Your task to perform on an android device: Show me recent news Image 0: 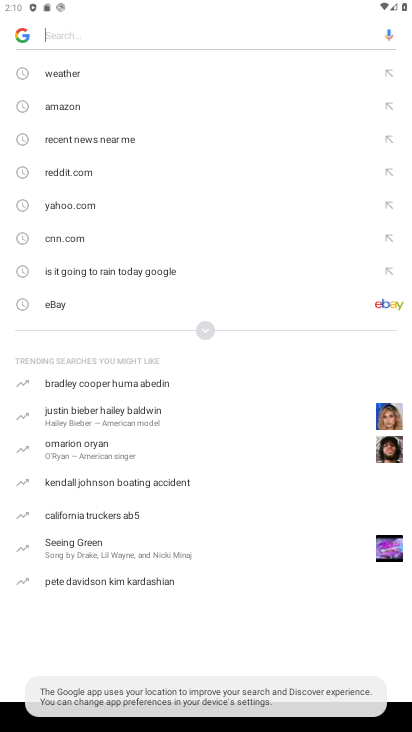
Step 0: press home button
Your task to perform on an android device: Show me recent news Image 1: 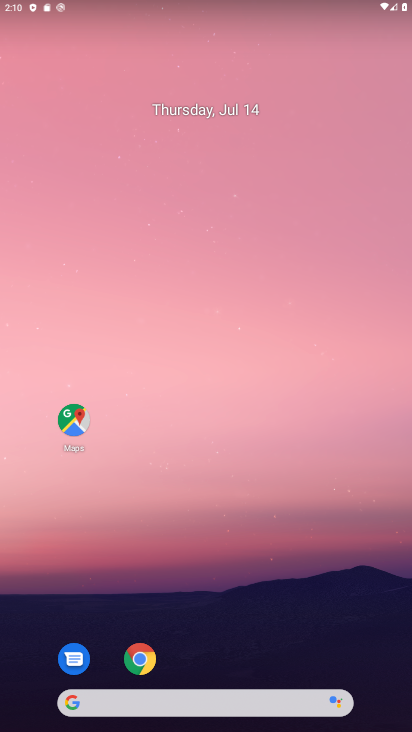
Step 1: drag from (236, 633) to (168, 205)
Your task to perform on an android device: Show me recent news Image 2: 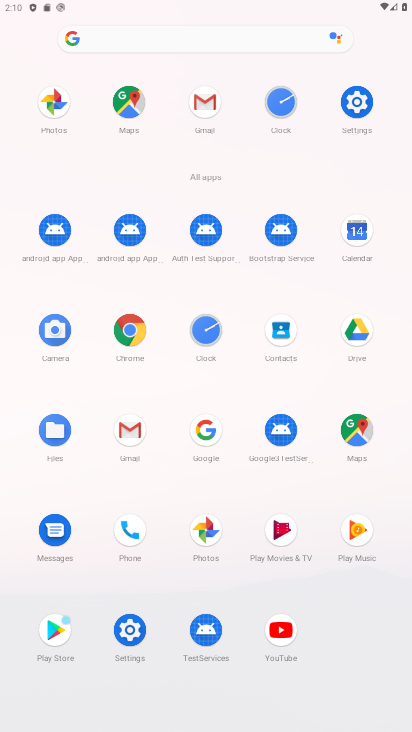
Step 2: click (132, 337)
Your task to perform on an android device: Show me recent news Image 3: 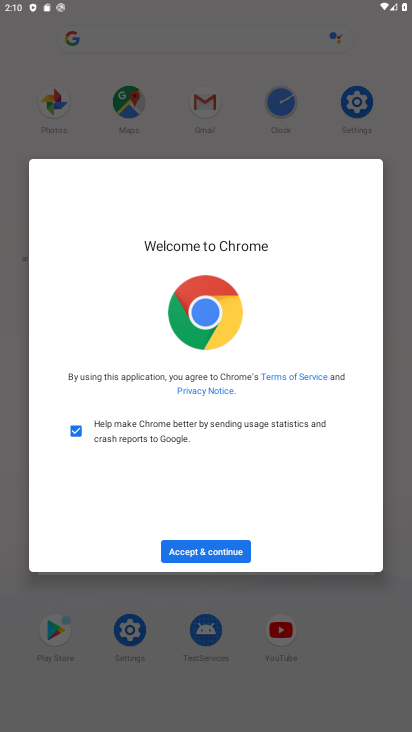
Step 3: click (216, 548)
Your task to perform on an android device: Show me recent news Image 4: 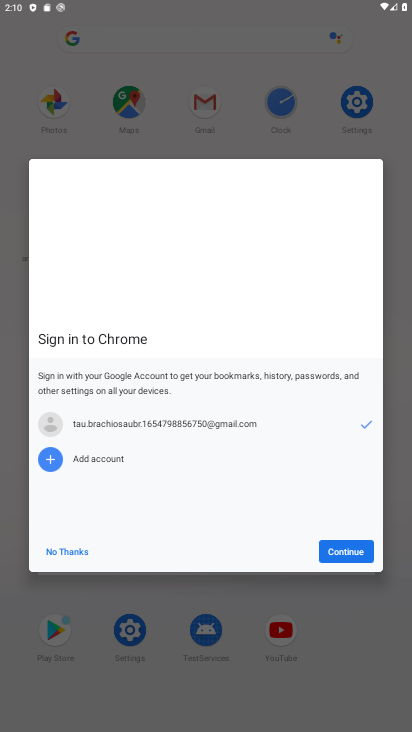
Step 4: click (345, 559)
Your task to perform on an android device: Show me recent news Image 5: 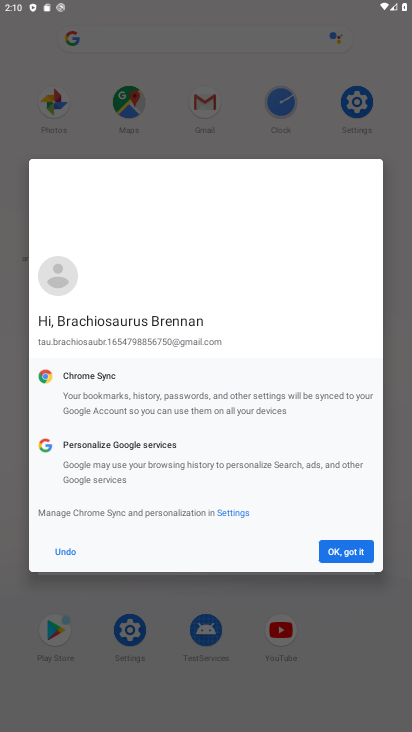
Step 5: click (352, 559)
Your task to perform on an android device: Show me recent news Image 6: 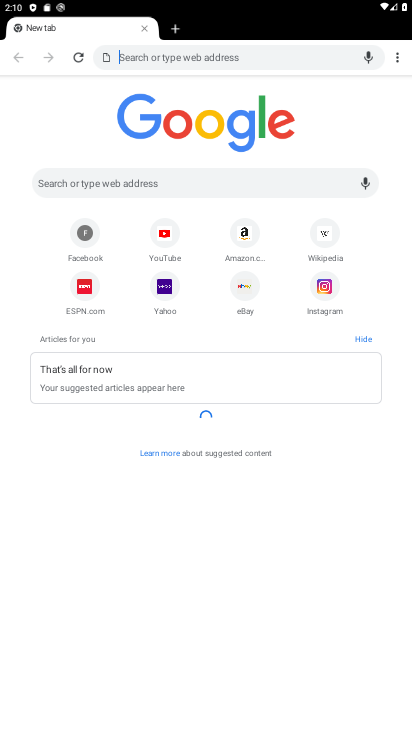
Step 6: click (179, 190)
Your task to perform on an android device: Show me recent news Image 7: 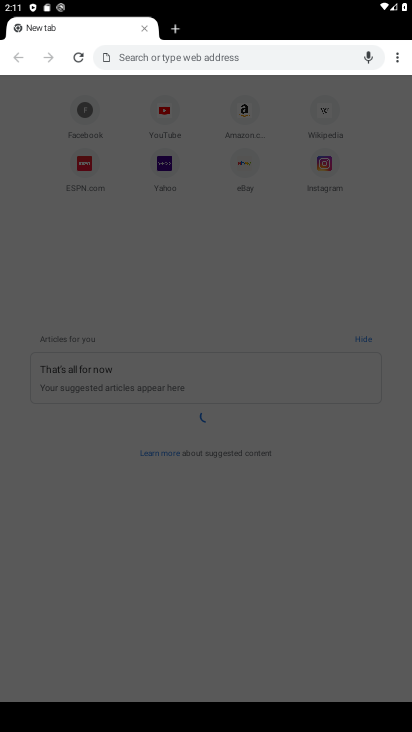
Step 7: type "recent news"
Your task to perform on an android device: Show me recent news Image 8: 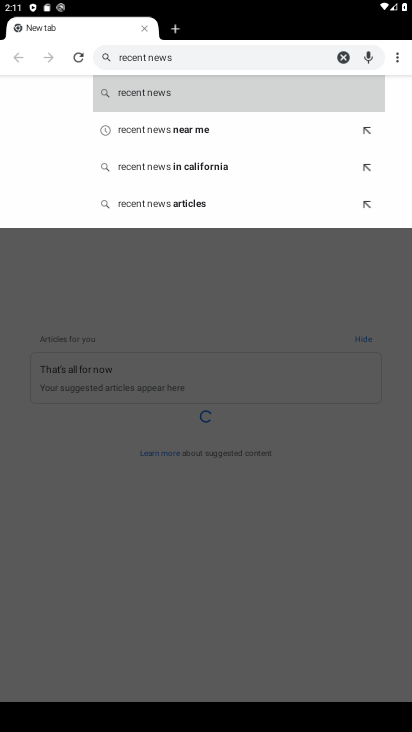
Step 8: click (173, 97)
Your task to perform on an android device: Show me recent news Image 9: 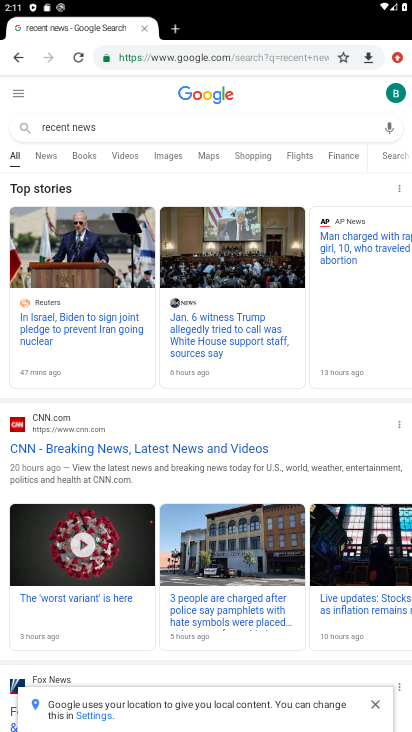
Step 9: task complete